Your task to perform on an android device: open chrome privacy settings Image 0: 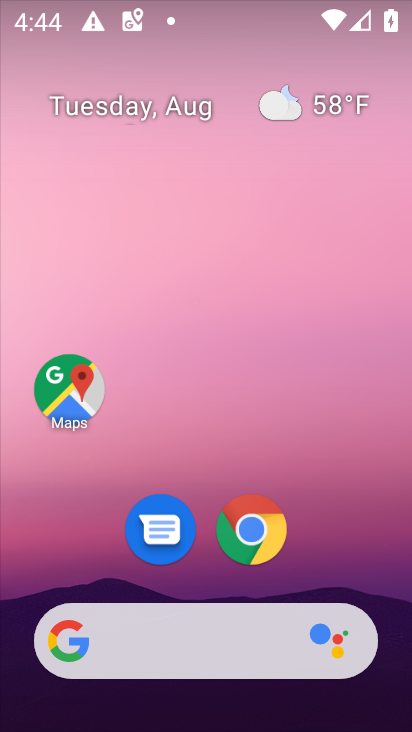
Step 0: click (205, 473)
Your task to perform on an android device: open chrome privacy settings Image 1: 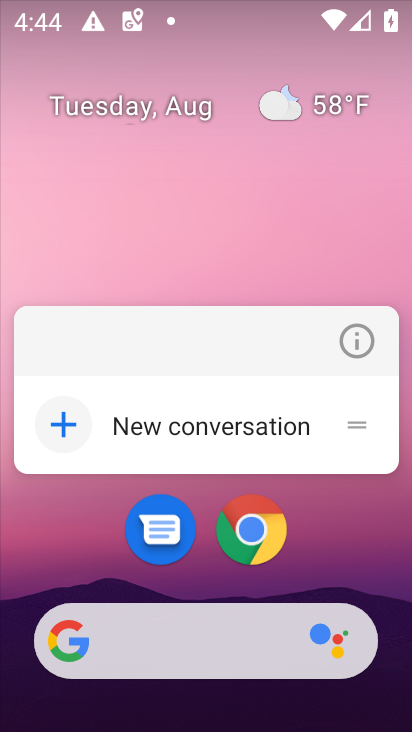
Step 1: click (262, 539)
Your task to perform on an android device: open chrome privacy settings Image 2: 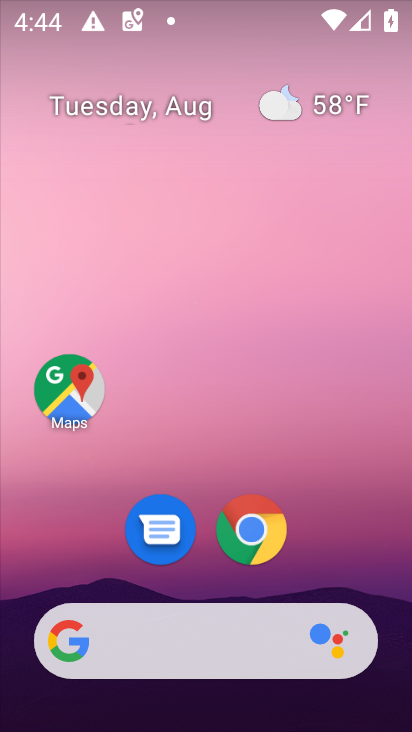
Step 2: click (262, 539)
Your task to perform on an android device: open chrome privacy settings Image 3: 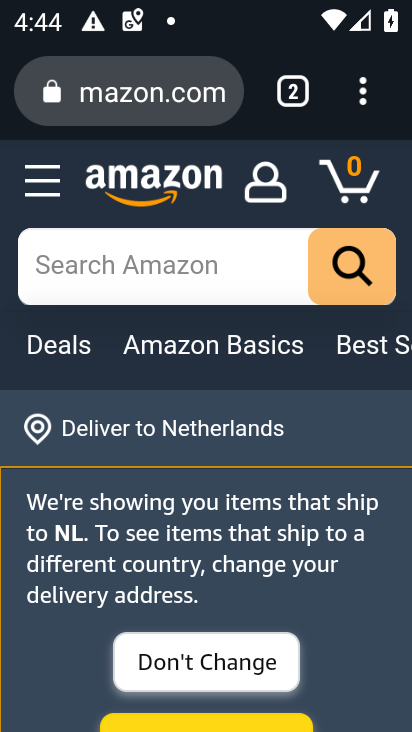
Step 3: click (362, 86)
Your task to perform on an android device: open chrome privacy settings Image 4: 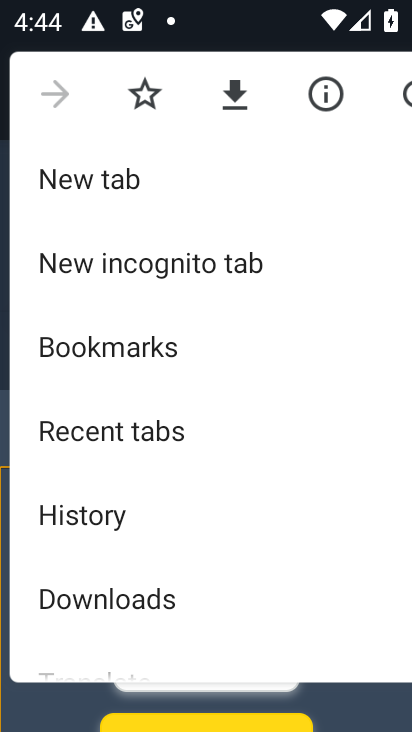
Step 4: drag from (203, 566) to (219, 265)
Your task to perform on an android device: open chrome privacy settings Image 5: 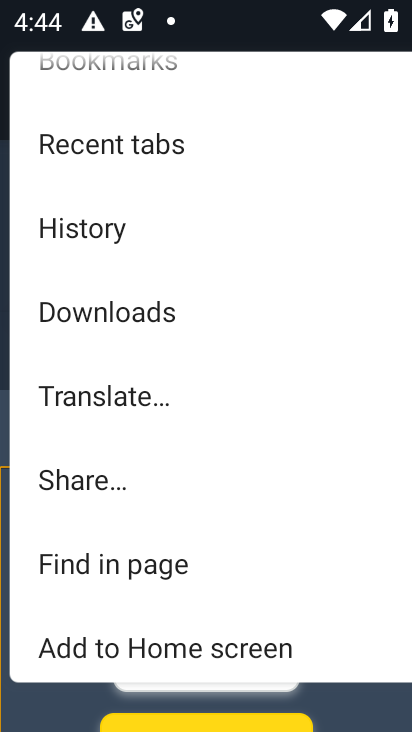
Step 5: drag from (169, 574) to (186, 218)
Your task to perform on an android device: open chrome privacy settings Image 6: 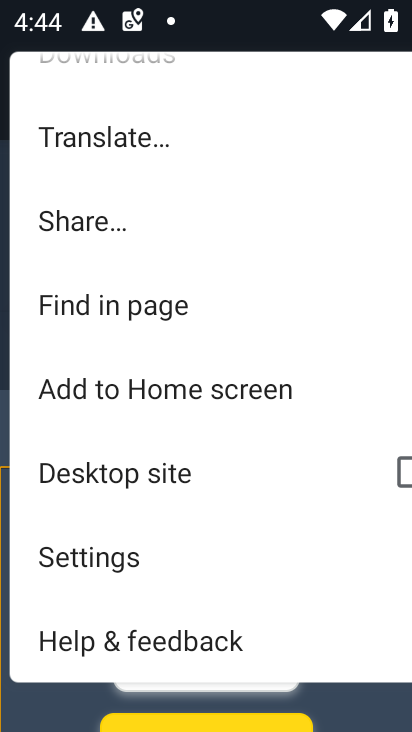
Step 6: drag from (168, 501) to (186, 152)
Your task to perform on an android device: open chrome privacy settings Image 7: 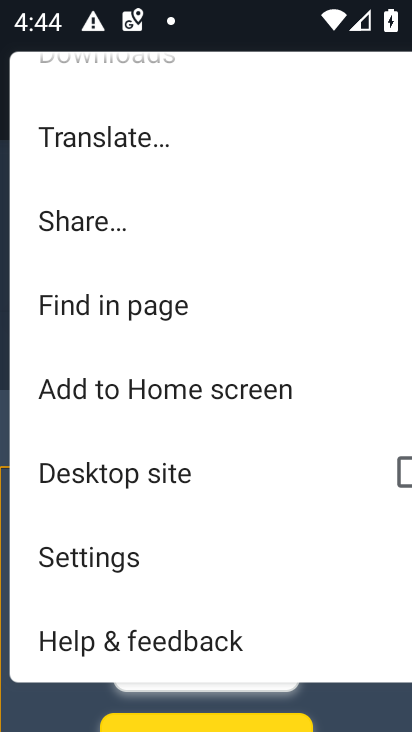
Step 7: drag from (190, 191) to (184, 543)
Your task to perform on an android device: open chrome privacy settings Image 8: 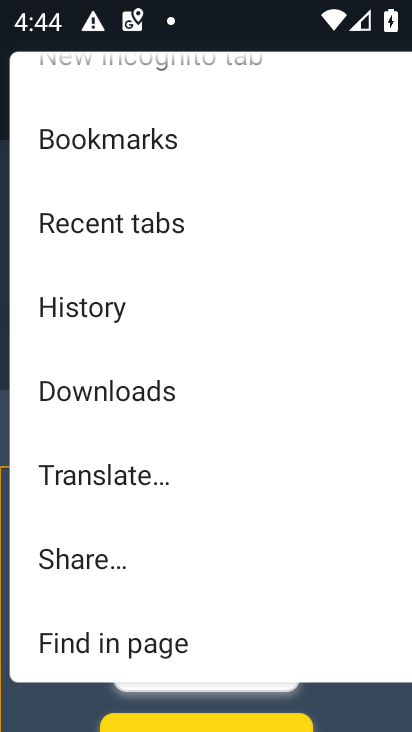
Step 8: drag from (164, 310) to (188, 517)
Your task to perform on an android device: open chrome privacy settings Image 9: 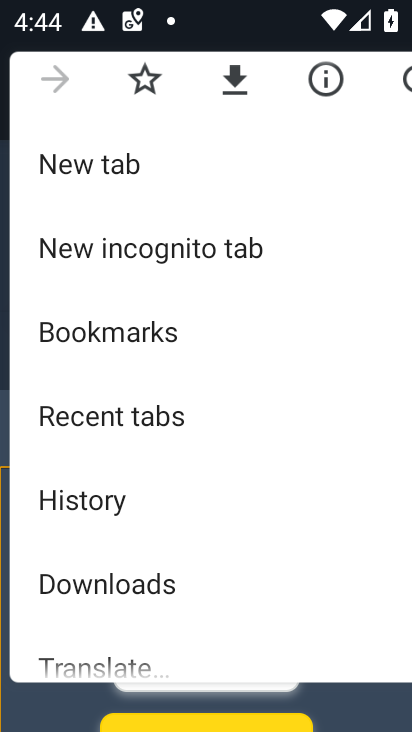
Step 9: drag from (169, 197) to (173, 435)
Your task to perform on an android device: open chrome privacy settings Image 10: 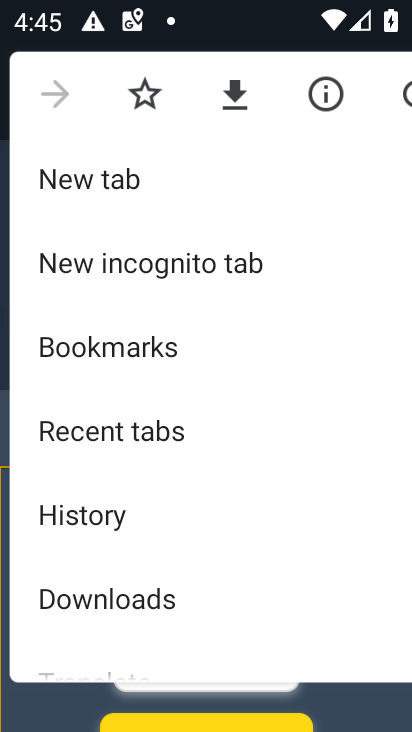
Step 10: drag from (131, 556) to (165, 180)
Your task to perform on an android device: open chrome privacy settings Image 11: 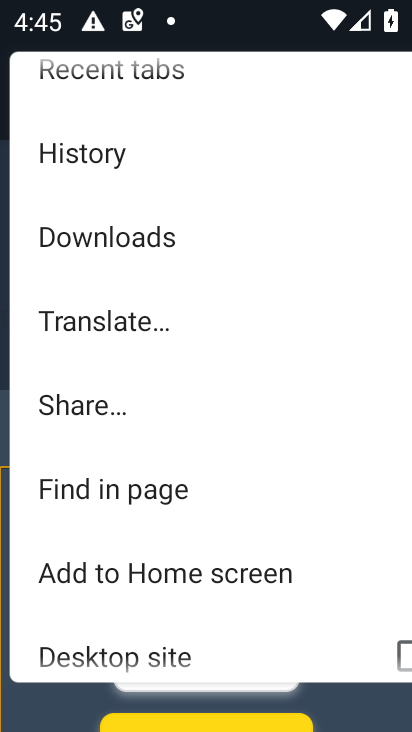
Step 11: drag from (167, 471) to (175, 202)
Your task to perform on an android device: open chrome privacy settings Image 12: 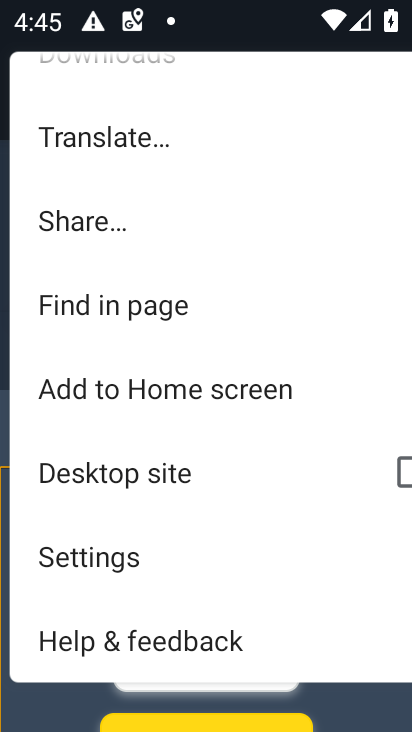
Step 12: click (125, 539)
Your task to perform on an android device: open chrome privacy settings Image 13: 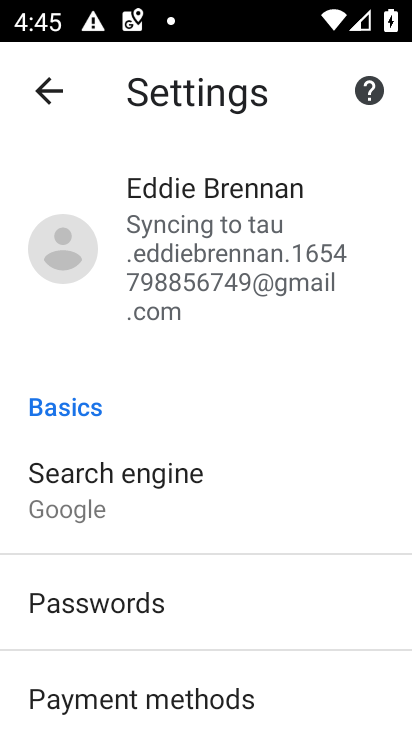
Step 13: drag from (214, 608) to (230, 220)
Your task to perform on an android device: open chrome privacy settings Image 14: 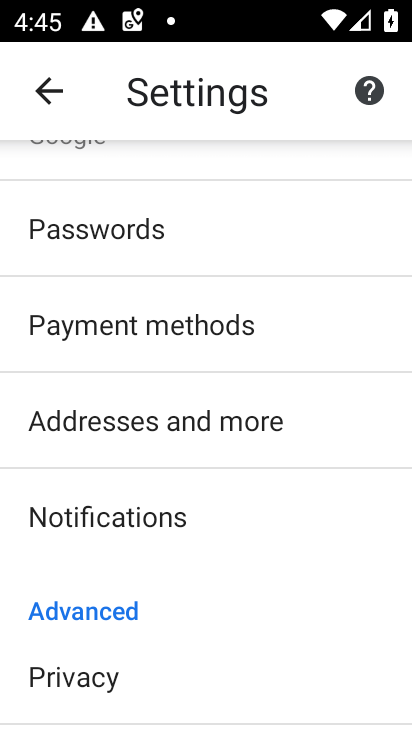
Step 14: click (144, 672)
Your task to perform on an android device: open chrome privacy settings Image 15: 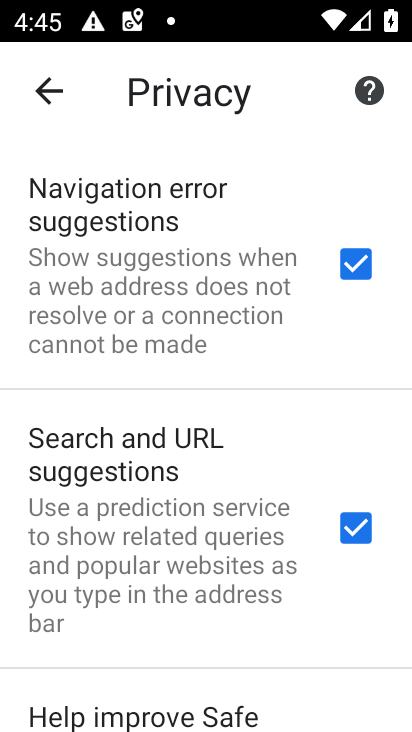
Step 15: task complete